Your task to perform on an android device: Open calendar and show me the fourth week of next month Image 0: 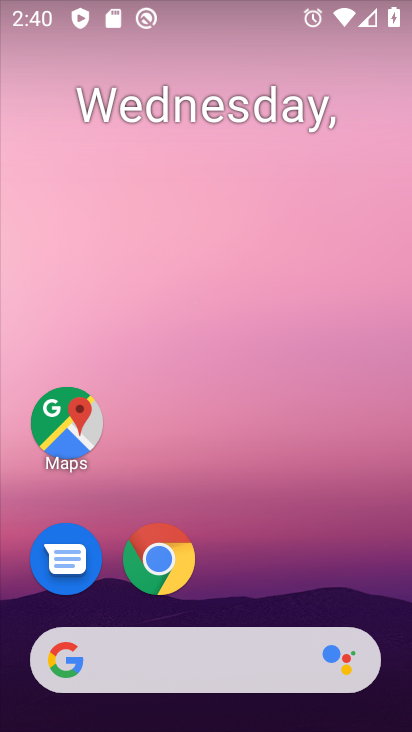
Step 0: drag from (273, 614) to (327, 38)
Your task to perform on an android device: Open calendar and show me the fourth week of next month Image 1: 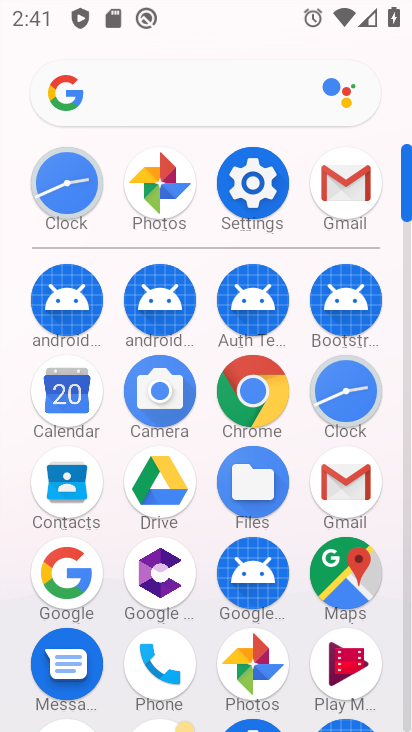
Step 1: click (84, 396)
Your task to perform on an android device: Open calendar and show me the fourth week of next month Image 2: 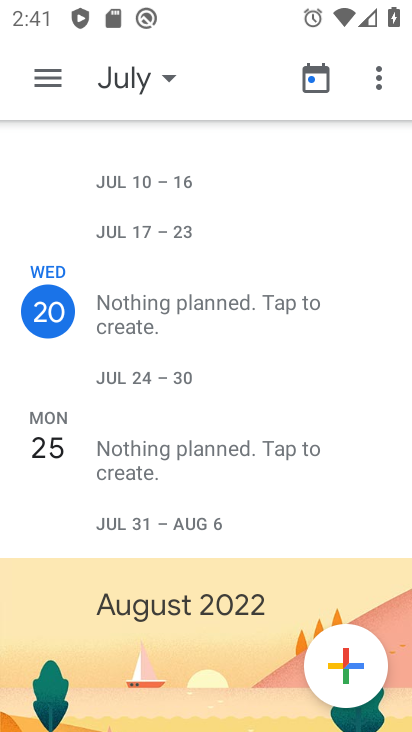
Step 2: click (179, 80)
Your task to perform on an android device: Open calendar and show me the fourth week of next month Image 3: 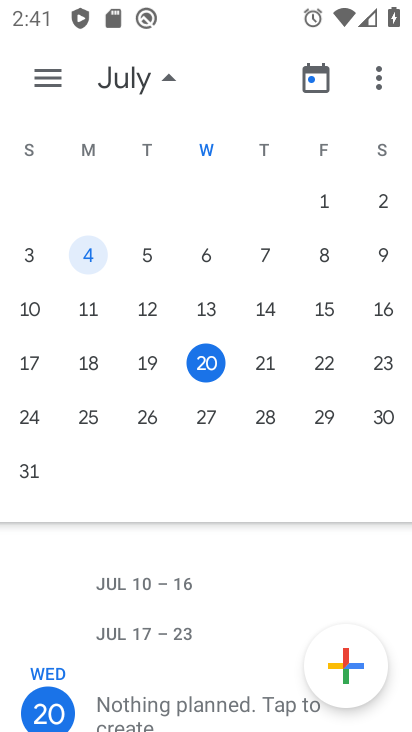
Step 3: click (386, 355)
Your task to perform on an android device: Open calendar and show me the fourth week of next month Image 4: 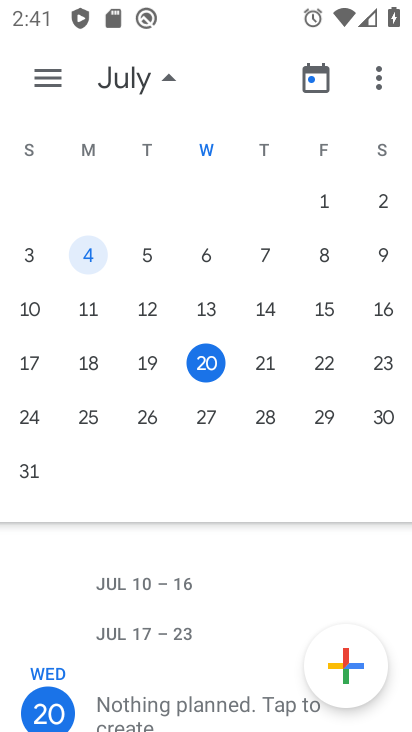
Step 4: drag from (359, 480) to (11, 471)
Your task to perform on an android device: Open calendar and show me the fourth week of next month Image 5: 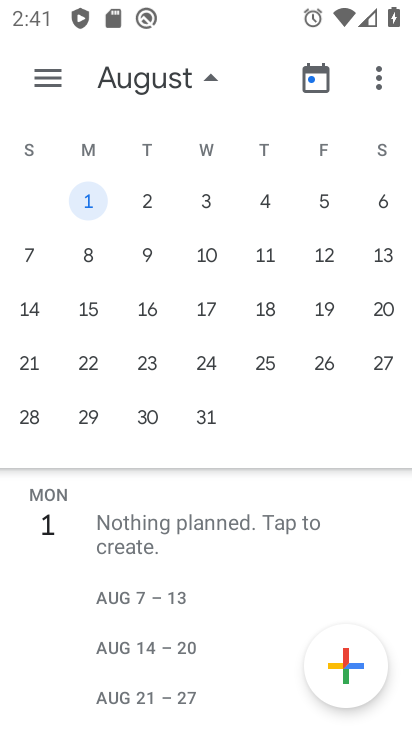
Step 5: click (92, 359)
Your task to perform on an android device: Open calendar and show me the fourth week of next month Image 6: 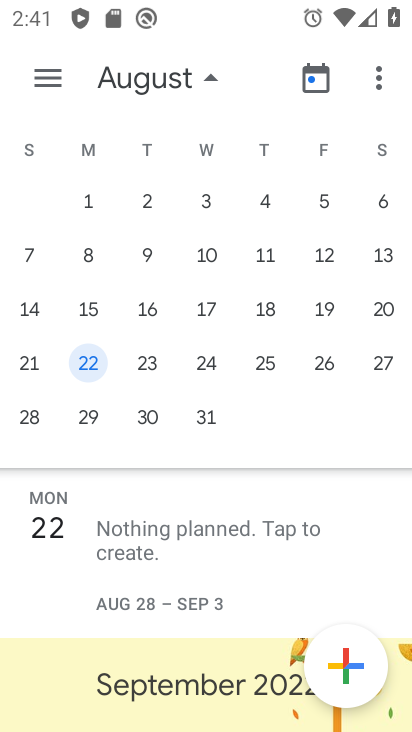
Step 6: task complete